Your task to perform on an android device: Open calendar and show me the third week of next month Image 0: 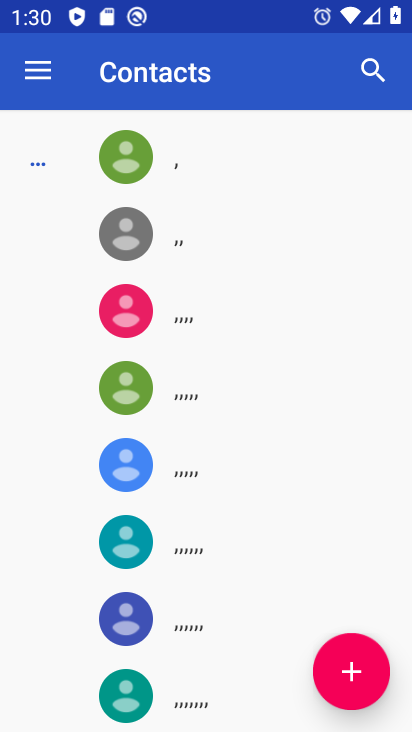
Step 0: press home button
Your task to perform on an android device: Open calendar and show me the third week of next month Image 1: 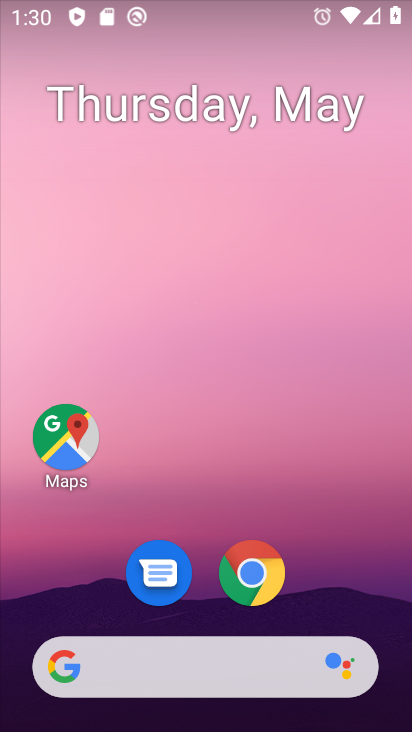
Step 1: drag from (386, 632) to (360, 277)
Your task to perform on an android device: Open calendar and show me the third week of next month Image 2: 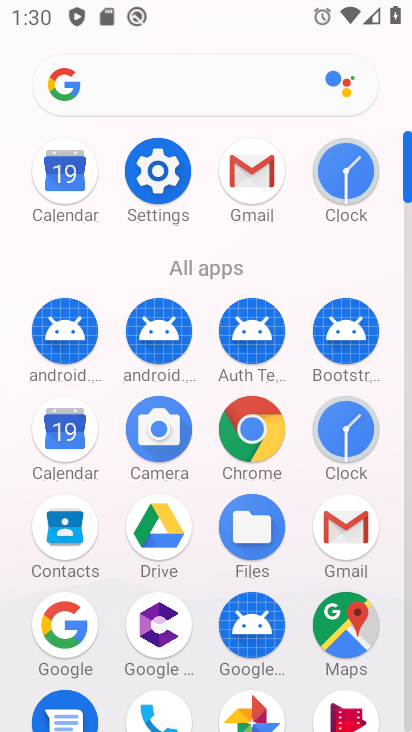
Step 2: click (68, 436)
Your task to perform on an android device: Open calendar and show me the third week of next month Image 3: 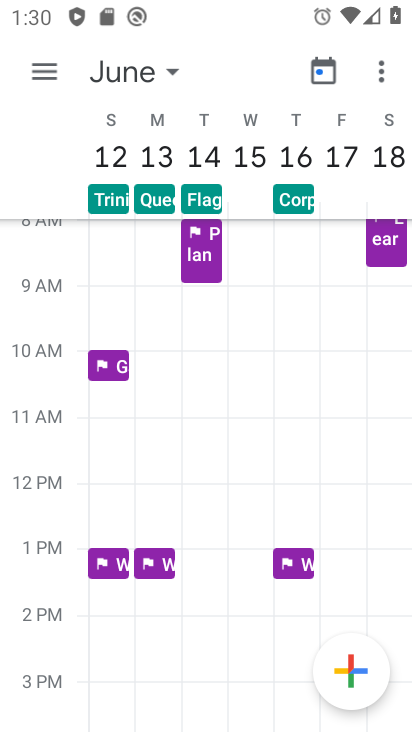
Step 3: click (174, 69)
Your task to perform on an android device: Open calendar and show me the third week of next month Image 4: 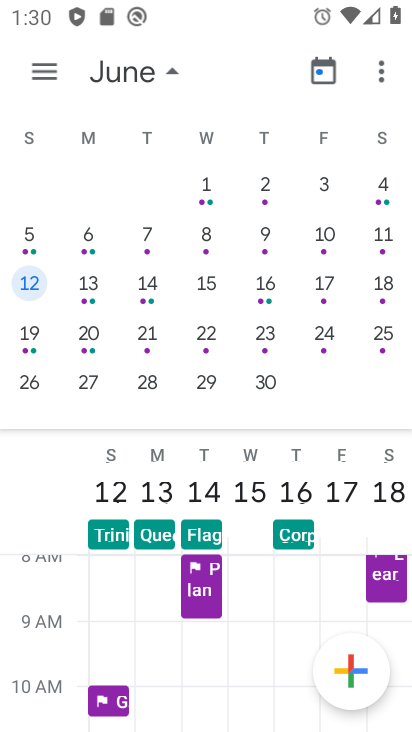
Step 4: task complete